Your task to perform on an android device: Is it going to rain tomorrow? Image 0: 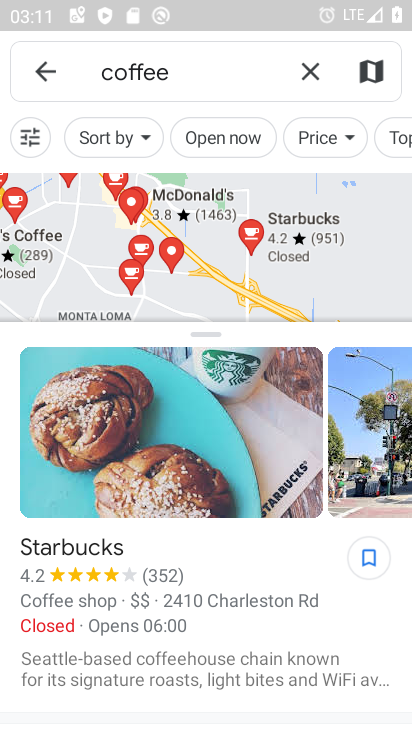
Step 0: press home button
Your task to perform on an android device: Is it going to rain tomorrow? Image 1: 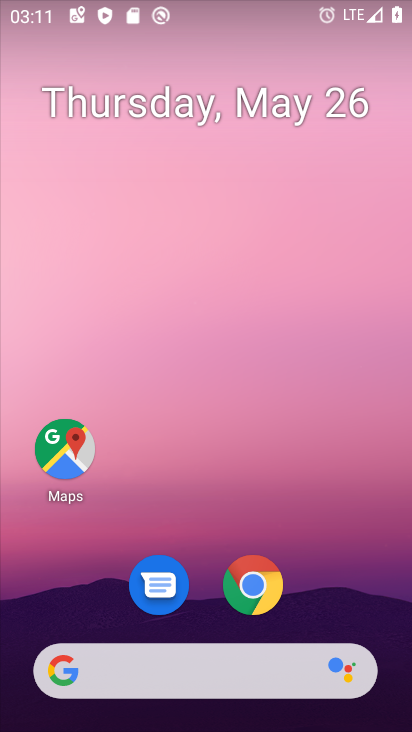
Step 1: click (168, 672)
Your task to perform on an android device: Is it going to rain tomorrow? Image 2: 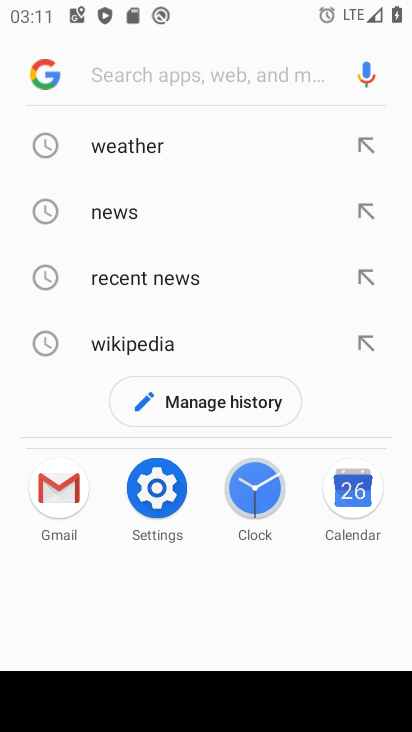
Step 2: click (125, 137)
Your task to perform on an android device: Is it going to rain tomorrow? Image 3: 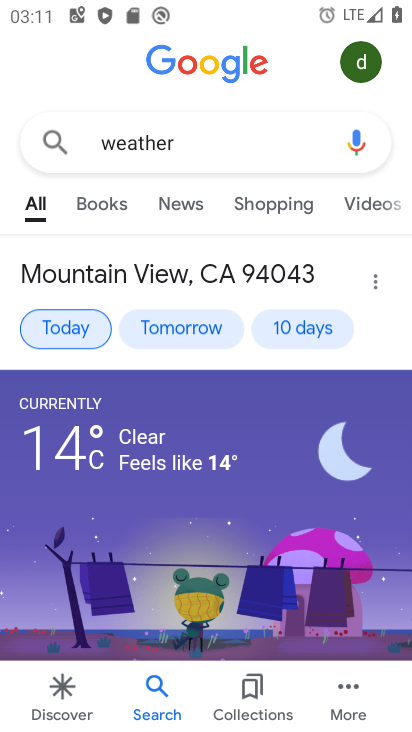
Step 3: click (89, 320)
Your task to perform on an android device: Is it going to rain tomorrow? Image 4: 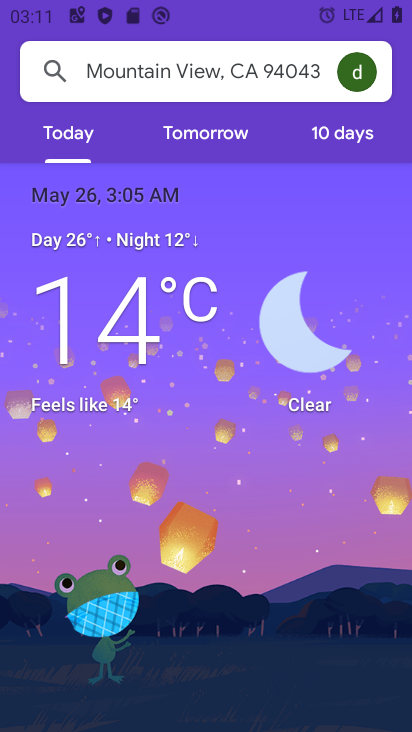
Step 4: click (211, 129)
Your task to perform on an android device: Is it going to rain tomorrow? Image 5: 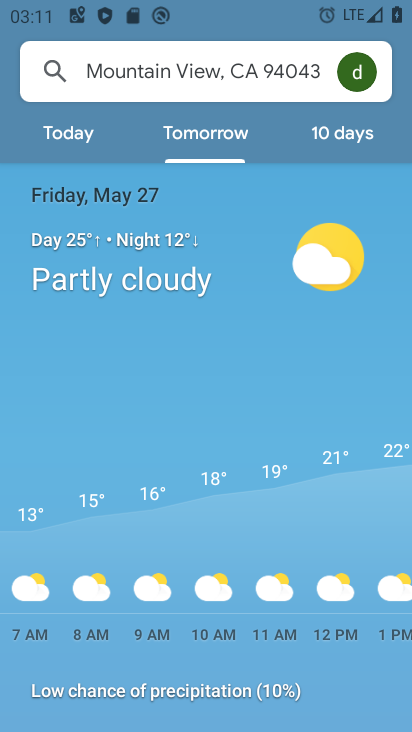
Step 5: task complete